Your task to perform on an android device: turn notification dots on Image 0: 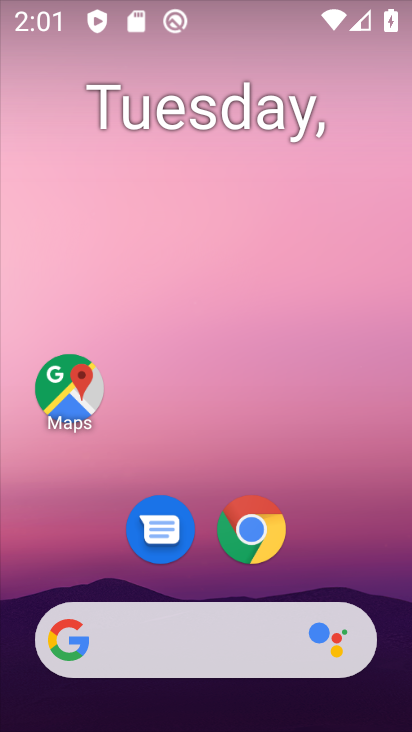
Step 0: drag from (204, 577) to (250, 73)
Your task to perform on an android device: turn notification dots on Image 1: 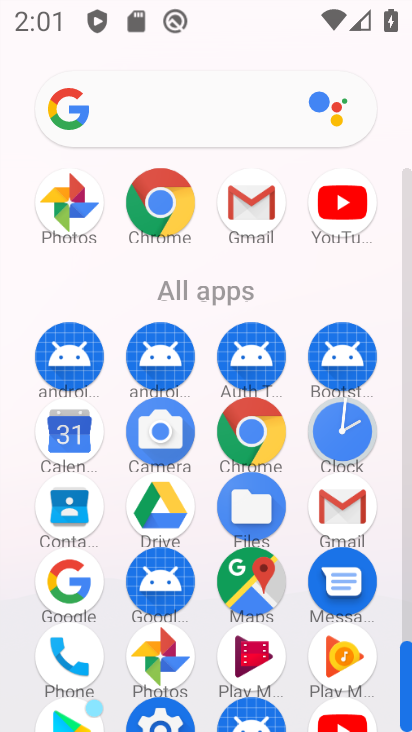
Step 1: click (169, 709)
Your task to perform on an android device: turn notification dots on Image 2: 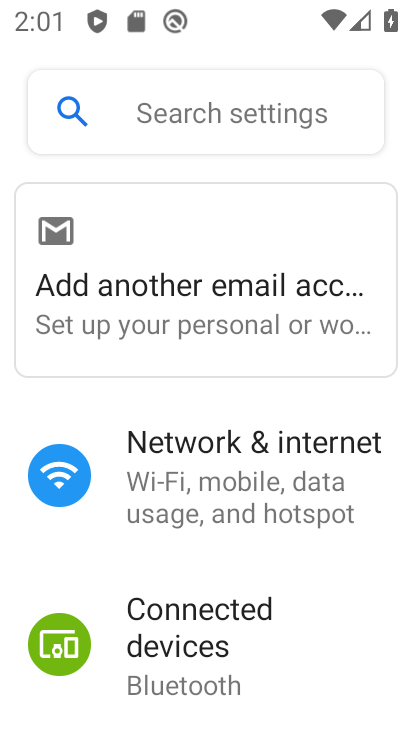
Step 2: drag from (235, 681) to (266, 171)
Your task to perform on an android device: turn notification dots on Image 3: 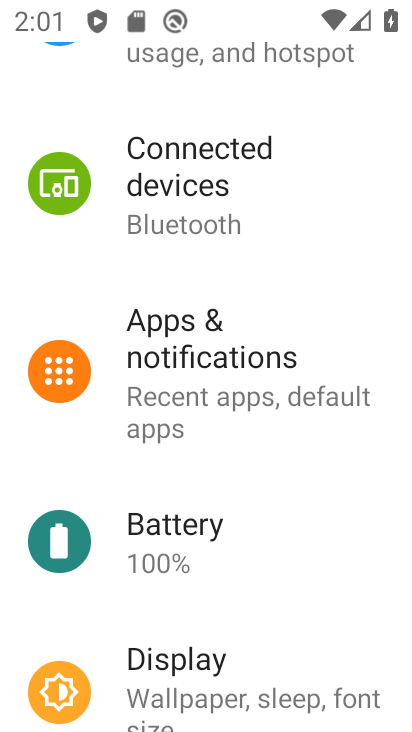
Step 3: click (213, 422)
Your task to perform on an android device: turn notification dots on Image 4: 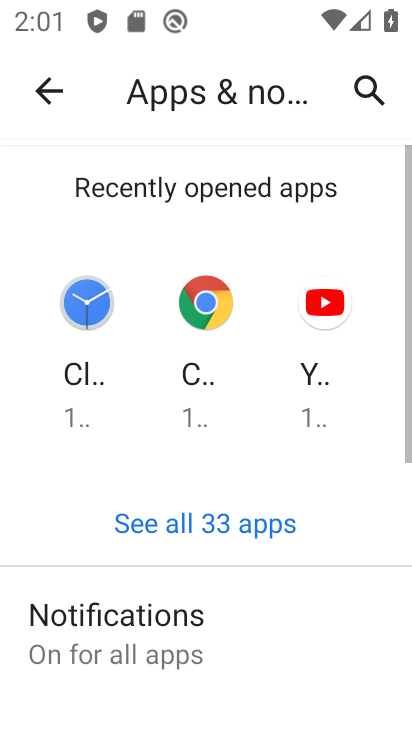
Step 4: click (164, 644)
Your task to perform on an android device: turn notification dots on Image 5: 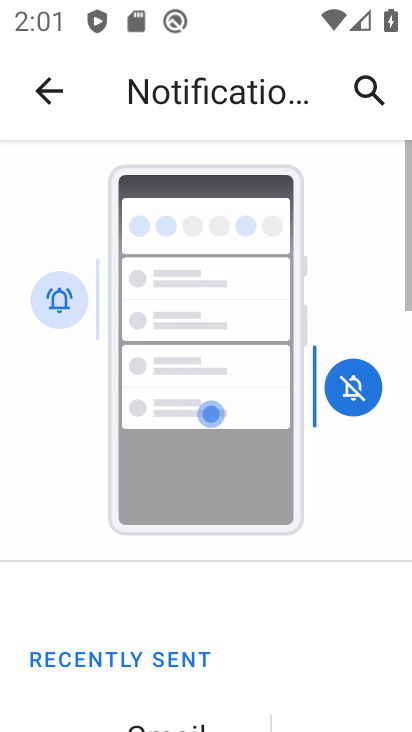
Step 5: drag from (198, 598) to (305, 121)
Your task to perform on an android device: turn notification dots on Image 6: 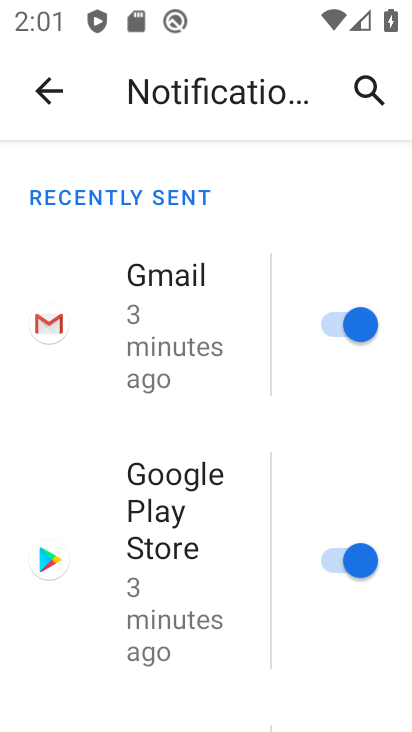
Step 6: drag from (220, 673) to (288, 192)
Your task to perform on an android device: turn notification dots on Image 7: 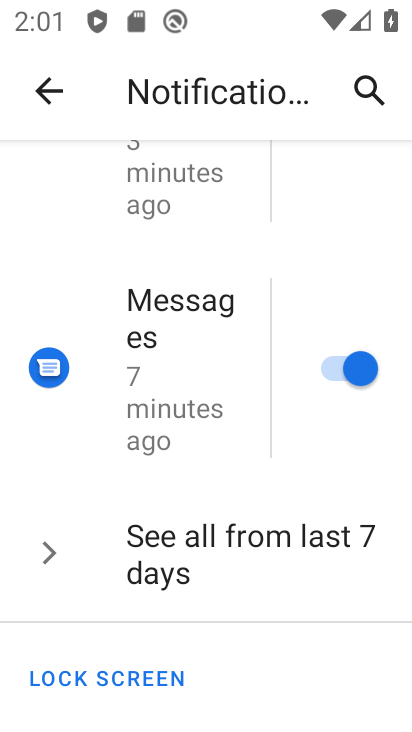
Step 7: drag from (226, 701) to (254, 162)
Your task to perform on an android device: turn notification dots on Image 8: 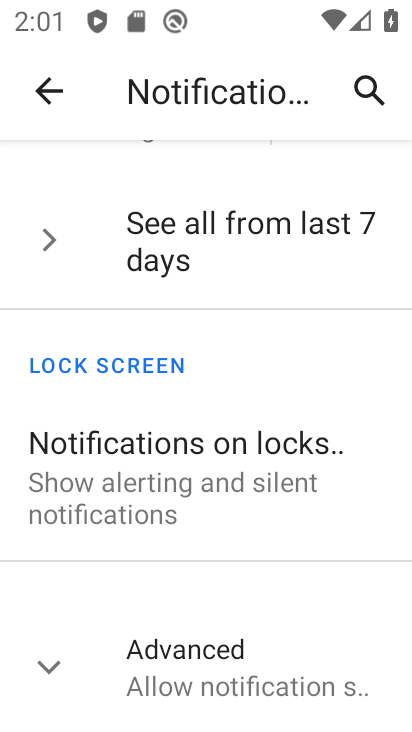
Step 8: click (212, 625)
Your task to perform on an android device: turn notification dots on Image 9: 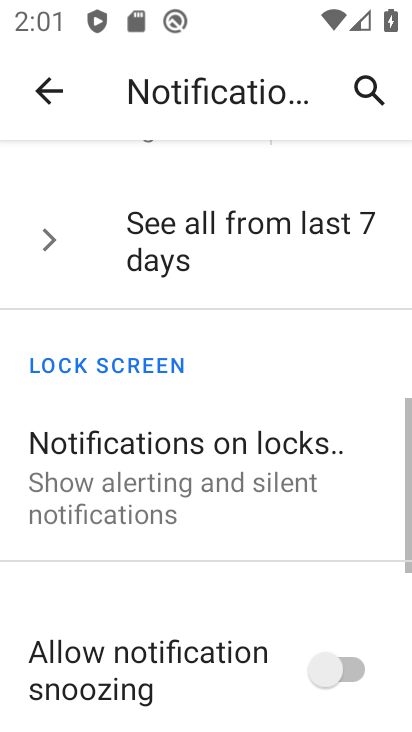
Step 9: task complete